Your task to perform on an android device: turn on translation in the chrome app Image 0: 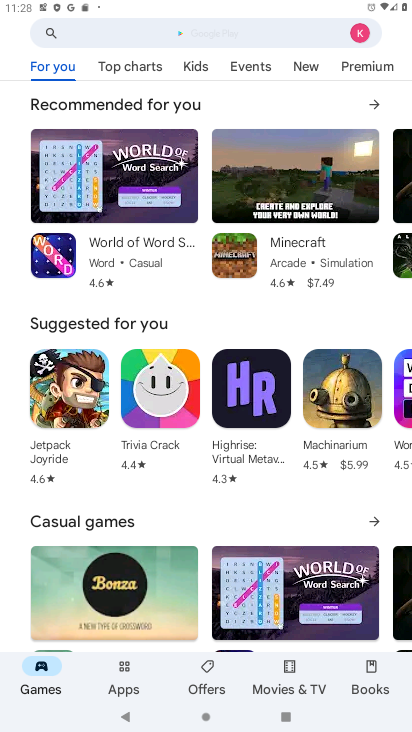
Step 0: press back button
Your task to perform on an android device: turn on translation in the chrome app Image 1: 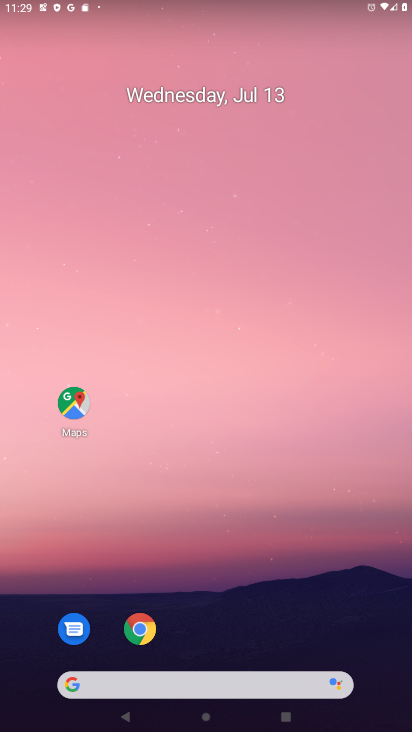
Step 1: click (148, 636)
Your task to perform on an android device: turn on translation in the chrome app Image 2: 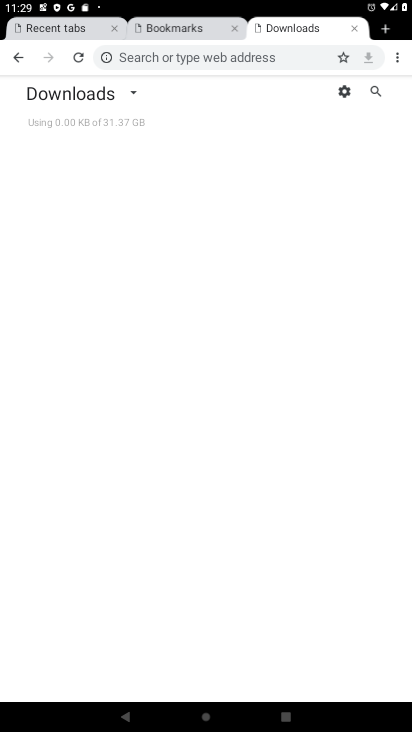
Step 2: click (399, 62)
Your task to perform on an android device: turn on translation in the chrome app Image 3: 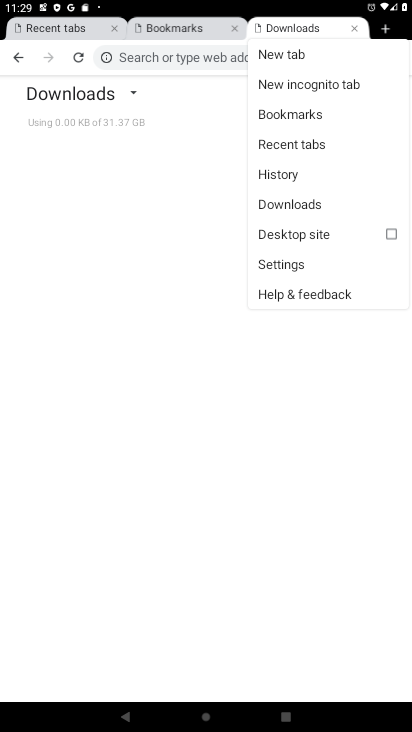
Step 3: click (324, 203)
Your task to perform on an android device: turn on translation in the chrome app Image 4: 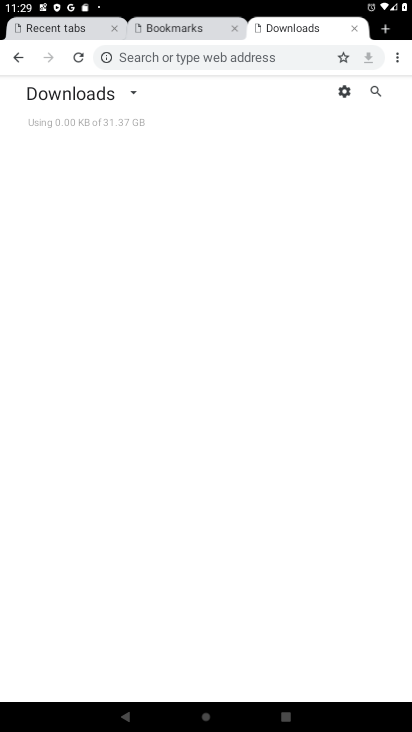
Step 4: click (392, 61)
Your task to perform on an android device: turn on translation in the chrome app Image 5: 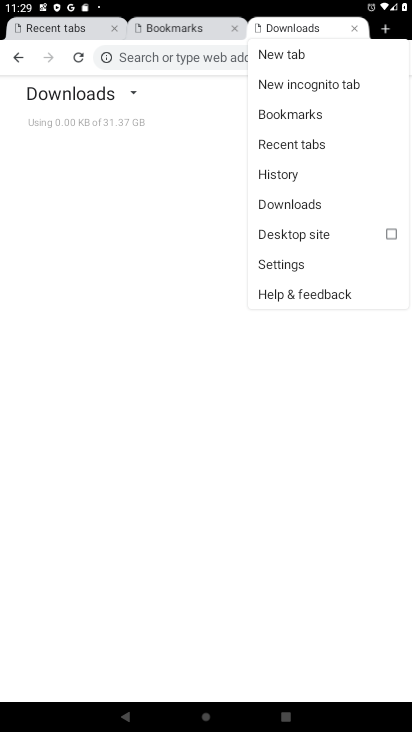
Step 5: click (322, 264)
Your task to perform on an android device: turn on translation in the chrome app Image 6: 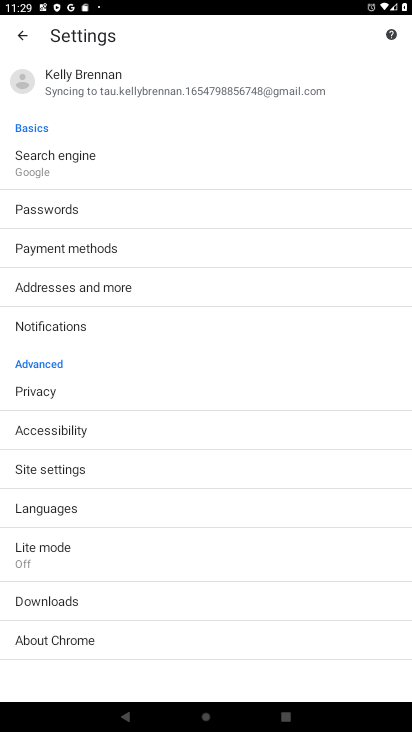
Step 6: click (145, 511)
Your task to perform on an android device: turn on translation in the chrome app Image 7: 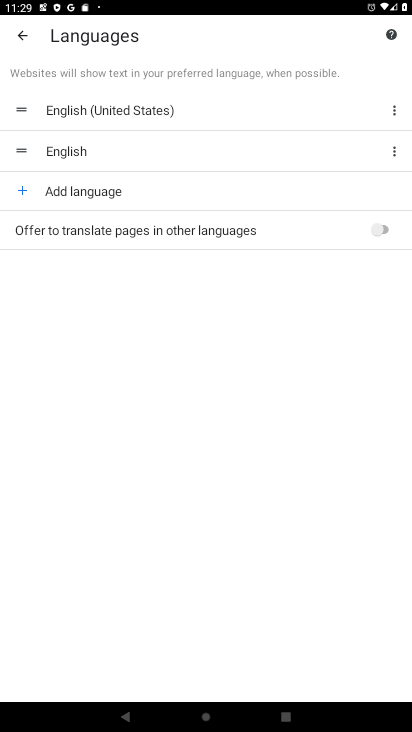
Step 7: click (359, 225)
Your task to perform on an android device: turn on translation in the chrome app Image 8: 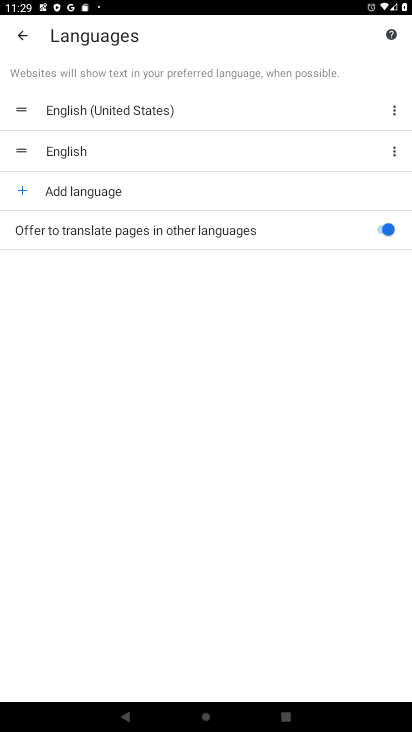
Step 8: task complete